Your task to perform on an android device: Add "macbook air" to the cart on amazon Image 0: 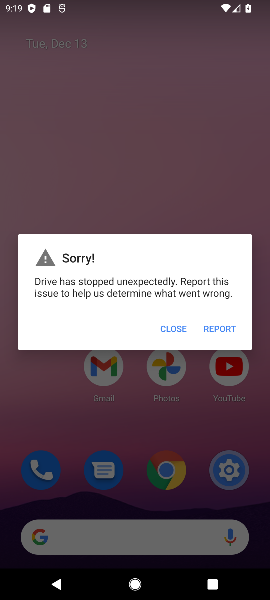
Step 0: press home button
Your task to perform on an android device: Add "macbook air" to the cart on amazon Image 1: 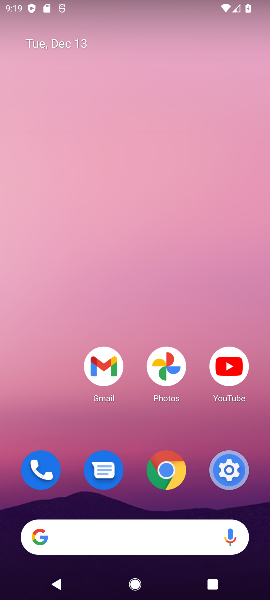
Step 1: click (53, 537)
Your task to perform on an android device: Add "macbook air" to the cart on amazon Image 2: 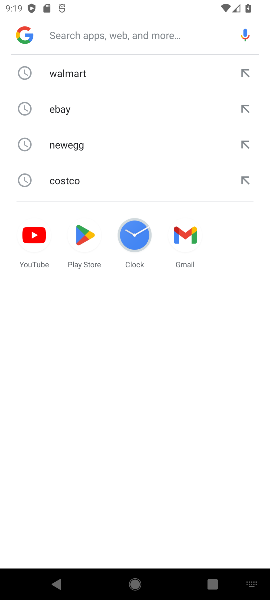
Step 2: type "amazon"
Your task to perform on an android device: Add "macbook air" to the cart on amazon Image 3: 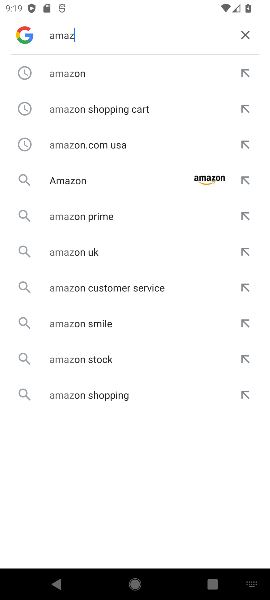
Step 3: press enter
Your task to perform on an android device: Add "macbook air" to the cart on amazon Image 4: 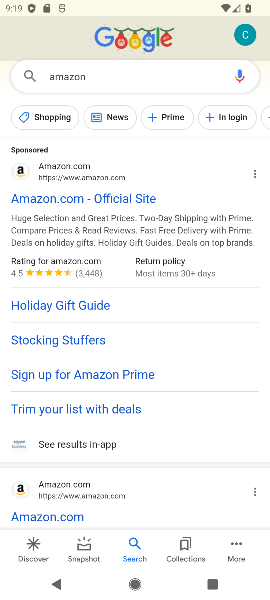
Step 4: click (78, 200)
Your task to perform on an android device: Add "macbook air" to the cart on amazon Image 5: 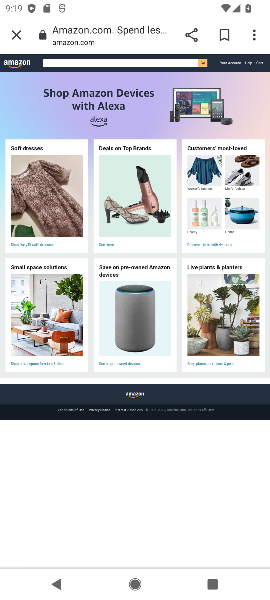
Step 5: click (58, 60)
Your task to perform on an android device: Add "macbook air" to the cart on amazon Image 6: 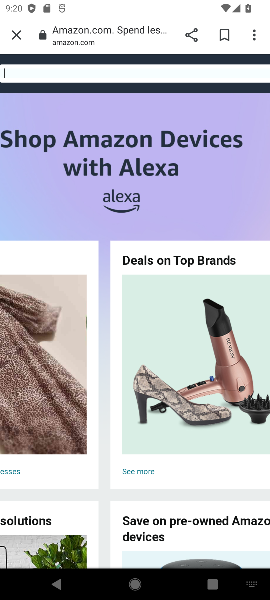
Step 6: type "macbook air"
Your task to perform on an android device: Add "macbook air" to the cart on amazon Image 7: 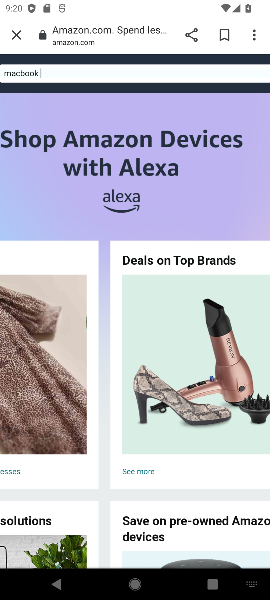
Step 7: press enter
Your task to perform on an android device: Add "macbook air" to the cart on amazon Image 8: 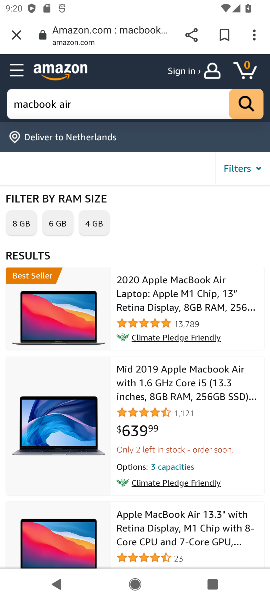
Step 8: click (148, 291)
Your task to perform on an android device: Add "macbook air" to the cart on amazon Image 9: 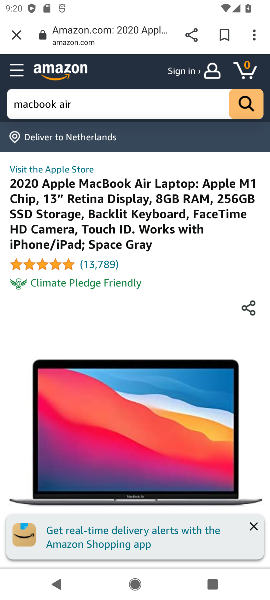
Step 9: task complete